Your task to perform on an android device: Is it going to rain tomorrow? Image 0: 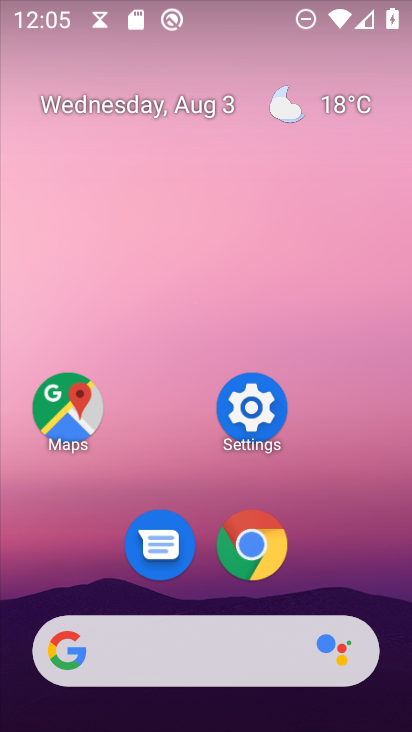
Step 0: press home button
Your task to perform on an android device: Is it going to rain tomorrow? Image 1: 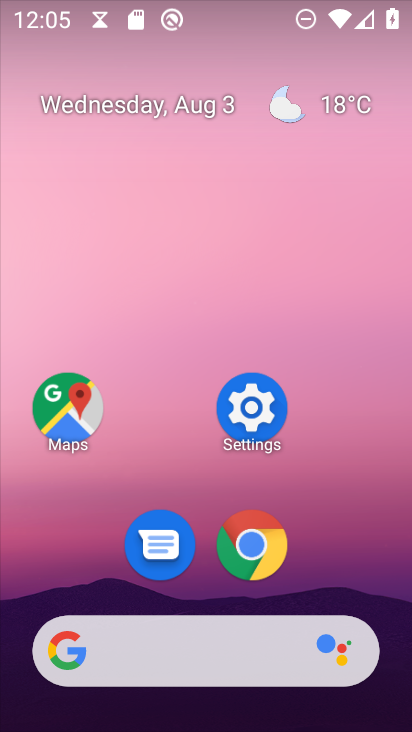
Step 1: click (132, 653)
Your task to perform on an android device: Is it going to rain tomorrow? Image 2: 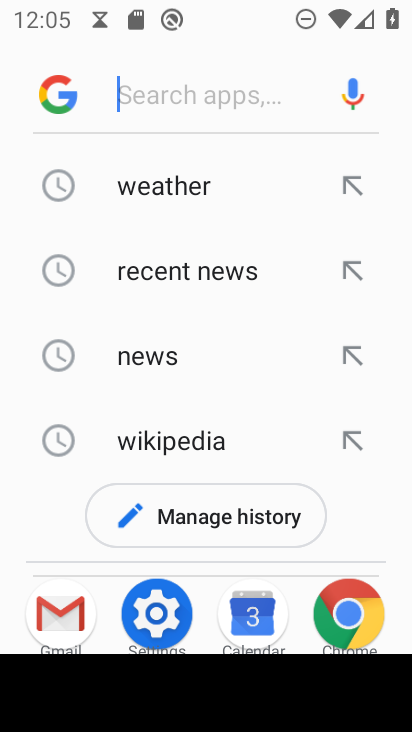
Step 2: click (186, 178)
Your task to perform on an android device: Is it going to rain tomorrow? Image 3: 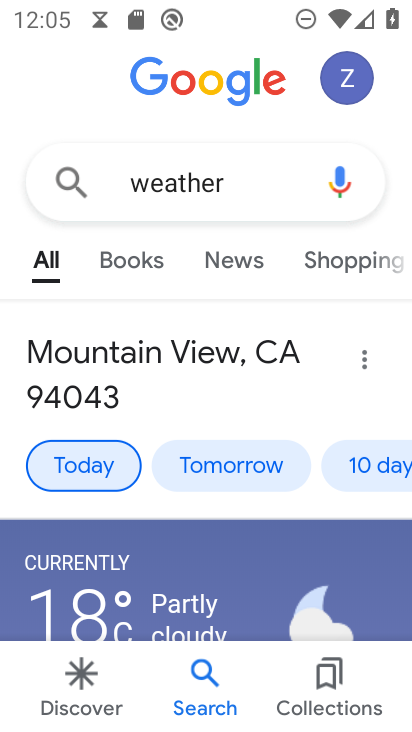
Step 3: click (239, 462)
Your task to perform on an android device: Is it going to rain tomorrow? Image 4: 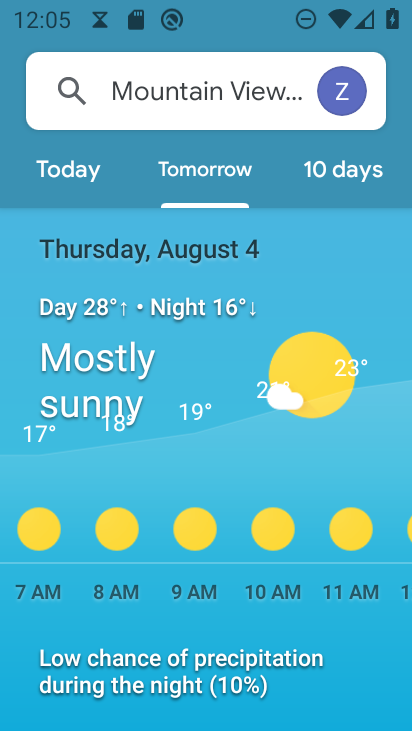
Step 4: task complete